Your task to perform on an android device: Clear all items from cart on amazon. Image 0: 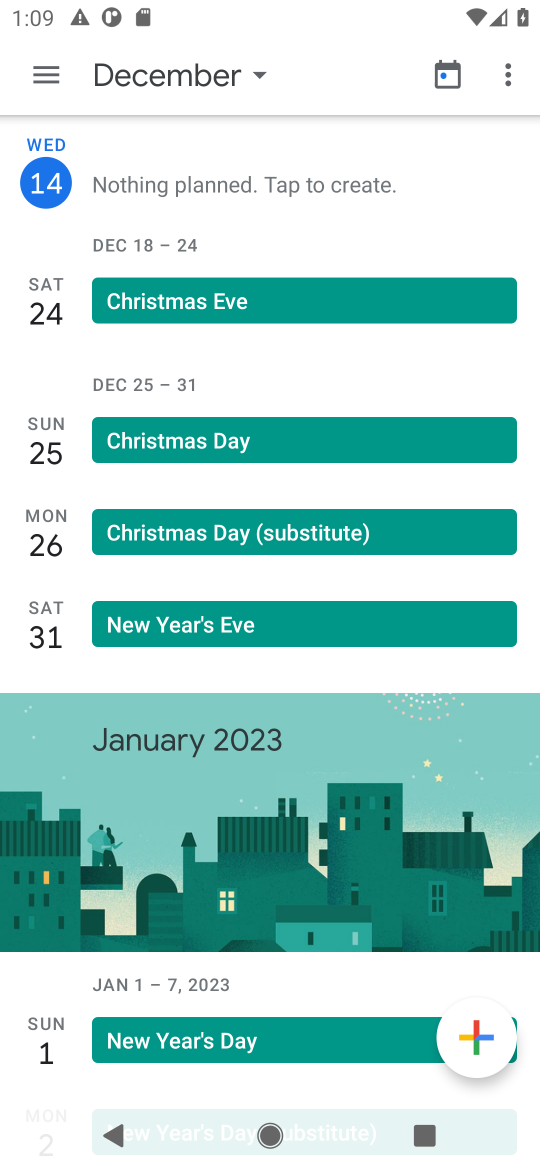
Step 0: press home button
Your task to perform on an android device: Clear all items from cart on amazon. Image 1: 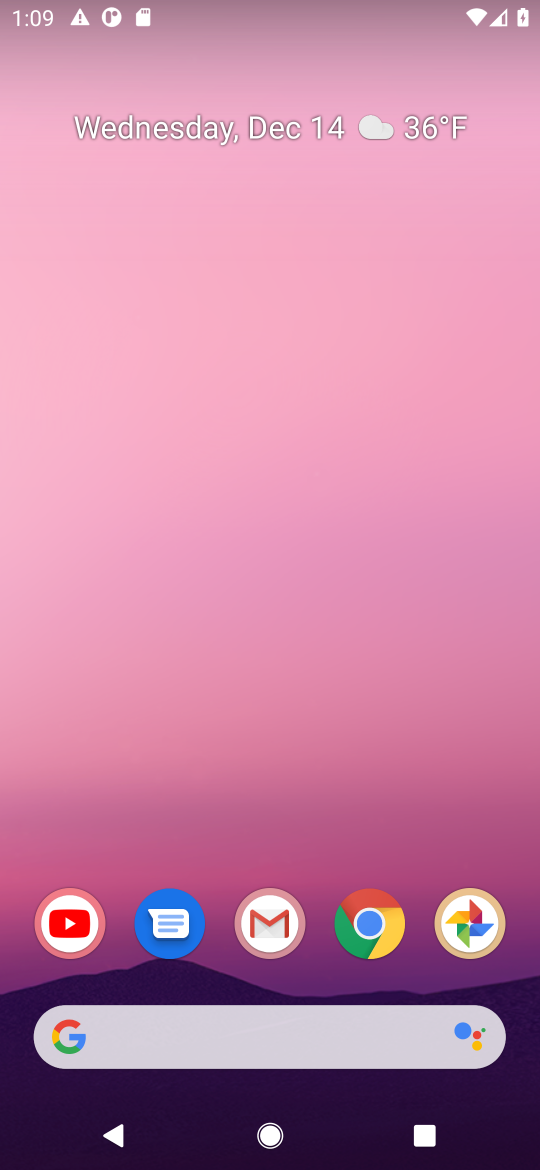
Step 1: click (352, 950)
Your task to perform on an android device: Clear all items from cart on amazon. Image 2: 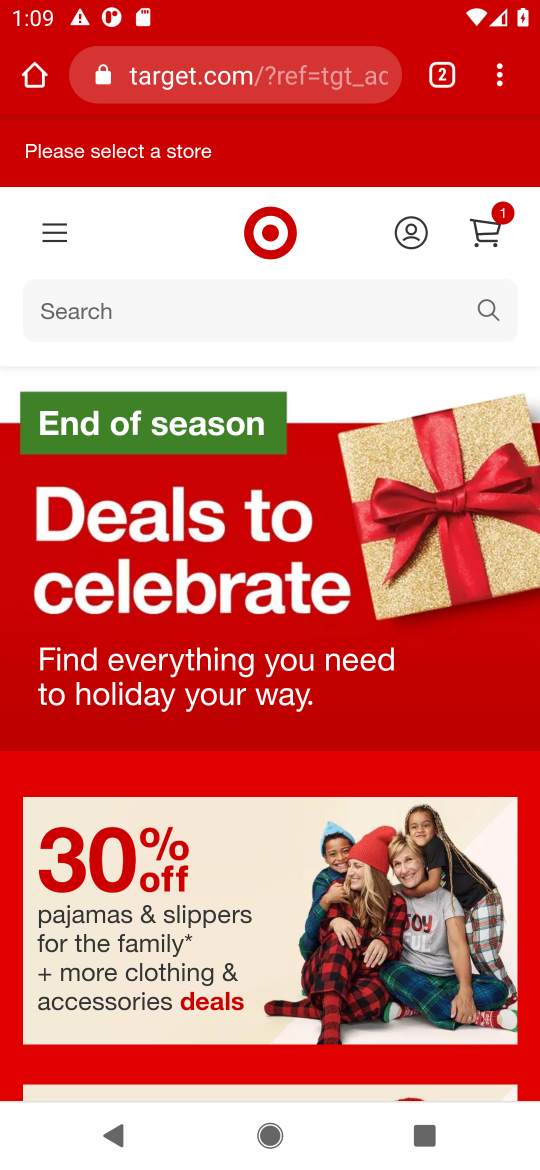
Step 2: click (248, 97)
Your task to perform on an android device: Clear all items from cart on amazon. Image 3: 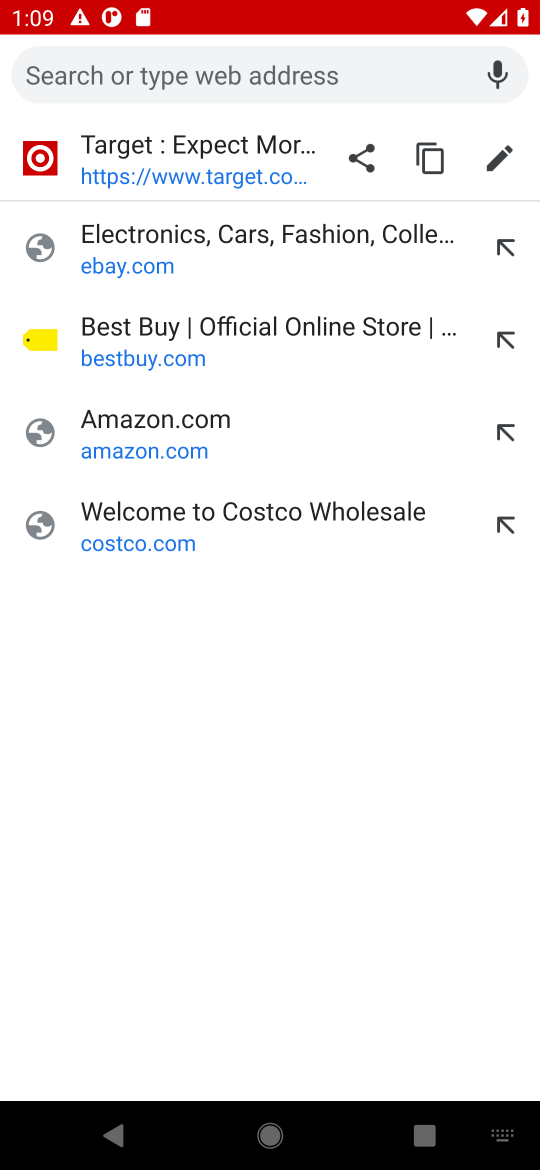
Step 3: click (252, 421)
Your task to perform on an android device: Clear all items from cart on amazon. Image 4: 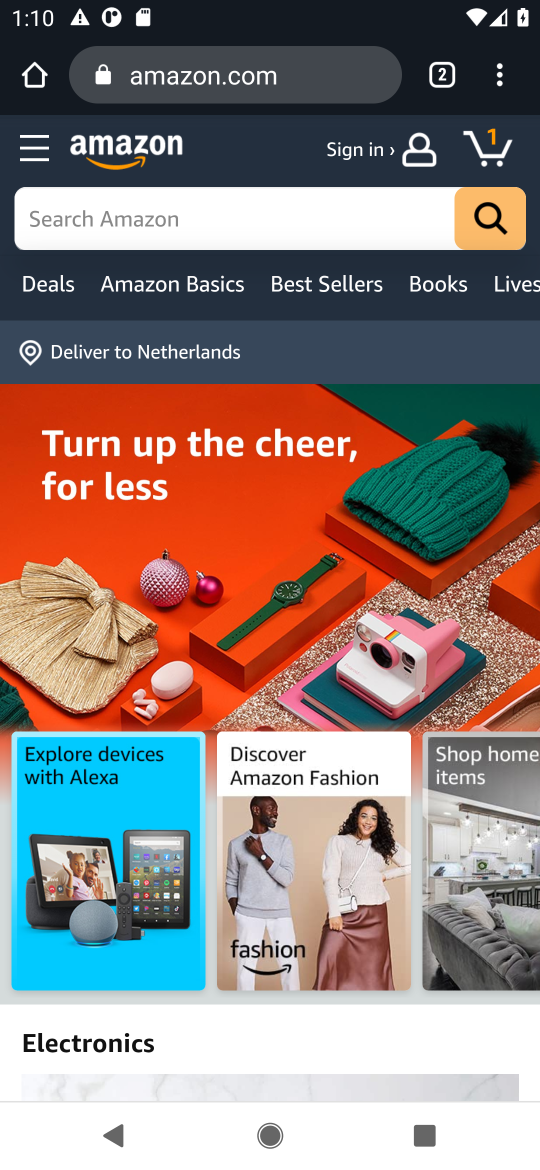
Step 4: click (487, 163)
Your task to perform on an android device: Clear all items from cart on amazon. Image 5: 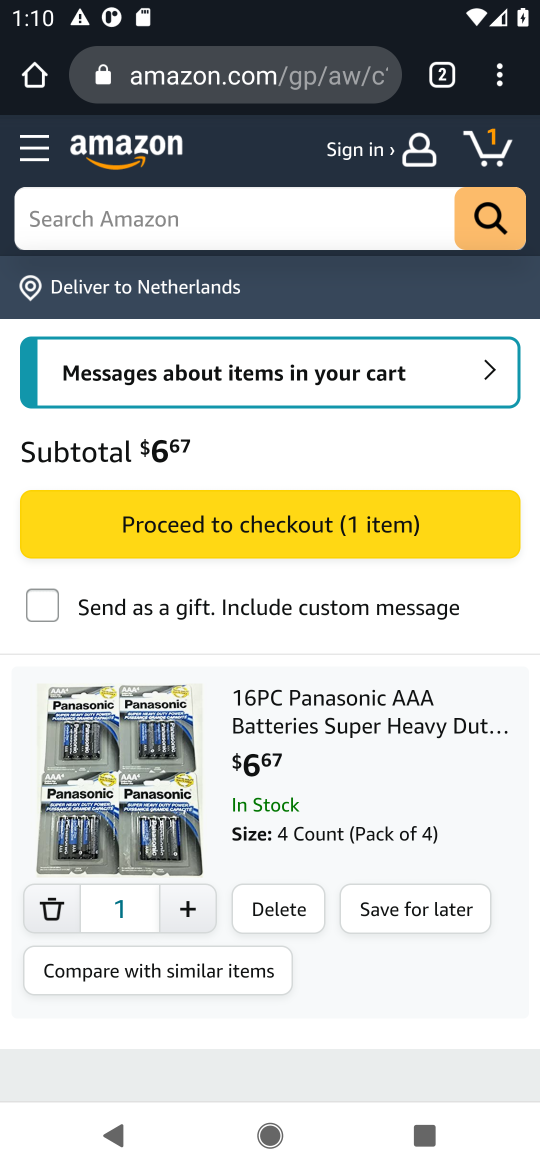
Step 5: click (266, 903)
Your task to perform on an android device: Clear all items from cart on amazon. Image 6: 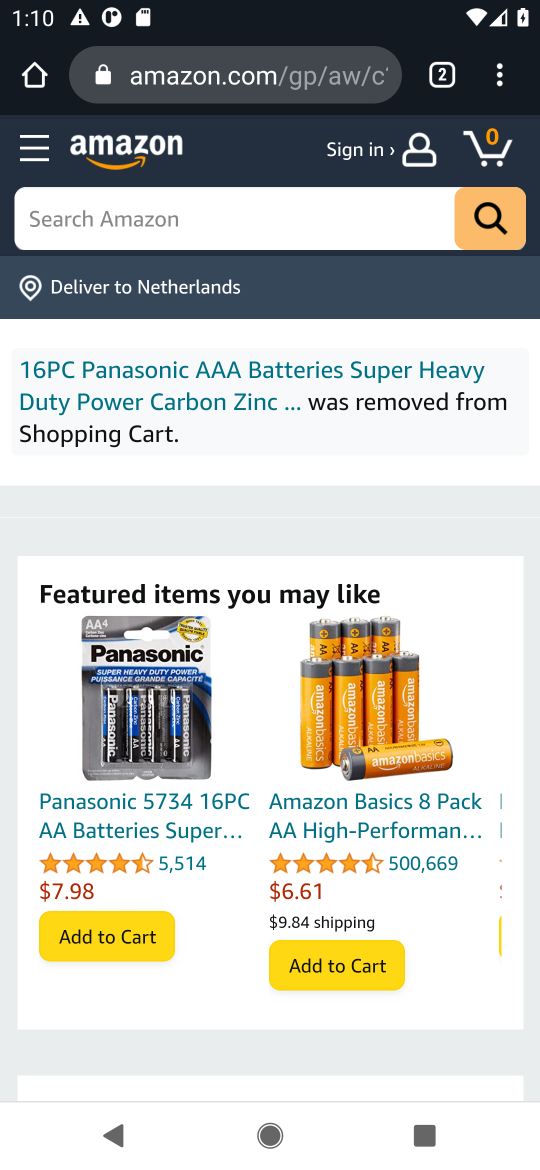
Step 6: task complete